Your task to perform on an android device: Open maps Image 0: 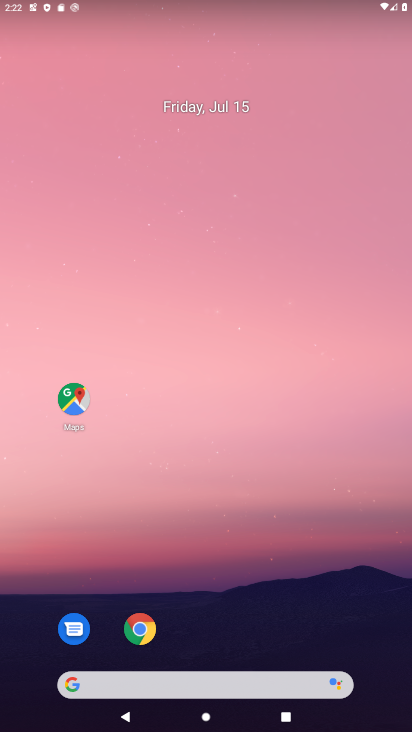
Step 0: click (76, 397)
Your task to perform on an android device: Open maps Image 1: 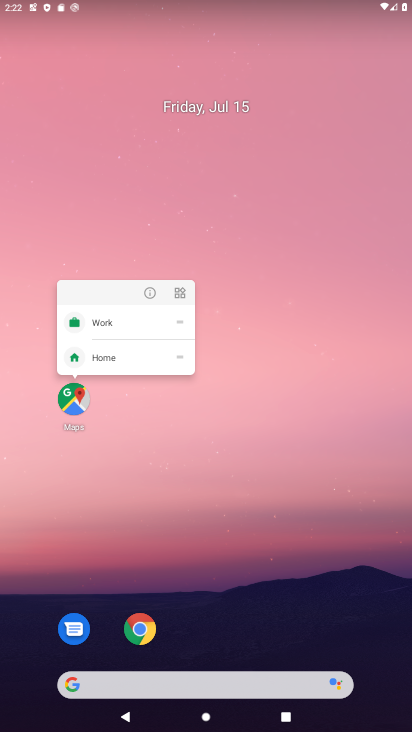
Step 1: click (76, 397)
Your task to perform on an android device: Open maps Image 2: 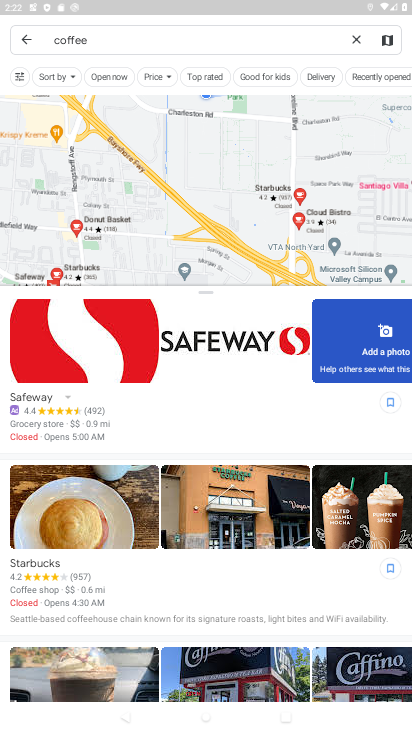
Step 2: task complete